Your task to perform on an android device: turn off location Image 0: 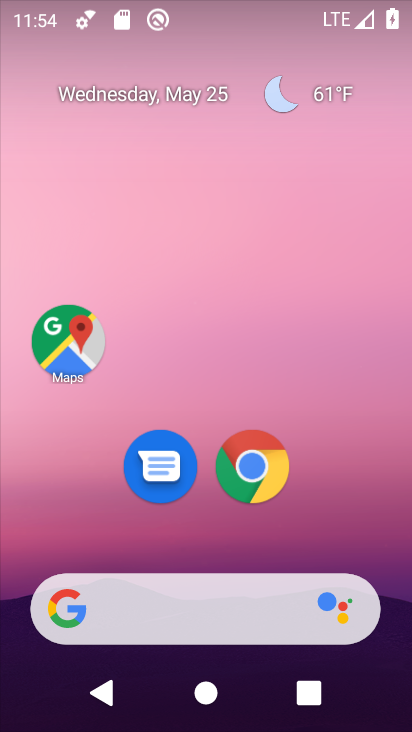
Step 0: drag from (243, 555) to (319, 60)
Your task to perform on an android device: turn off location Image 1: 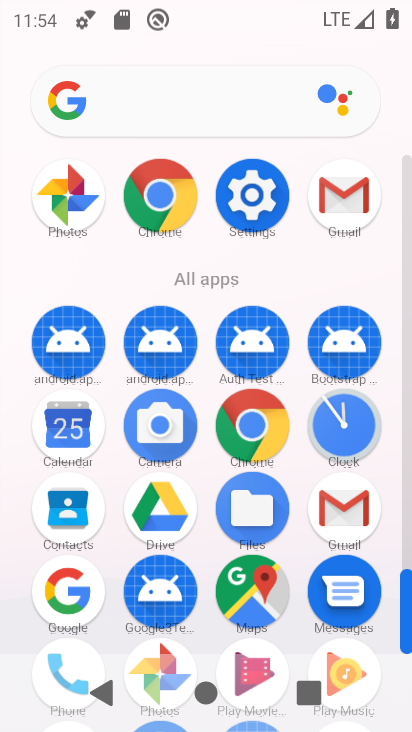
Step 1: click (250, 201)
Your task to perform on an android device: turn off location Image 2: 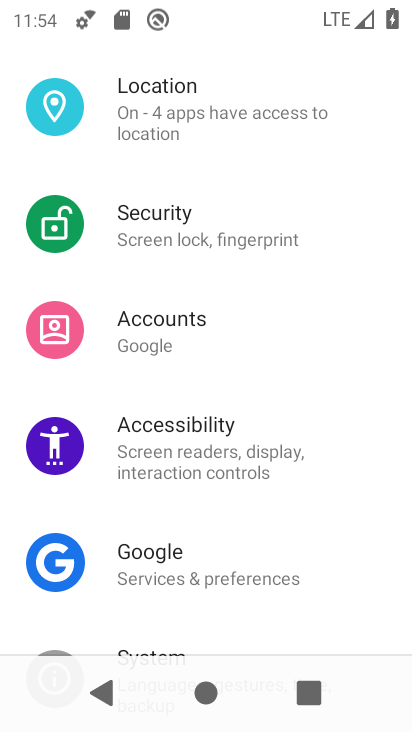
Step 2: click (232, 118)
Your task to perform on an android device: turn off location Image 3: 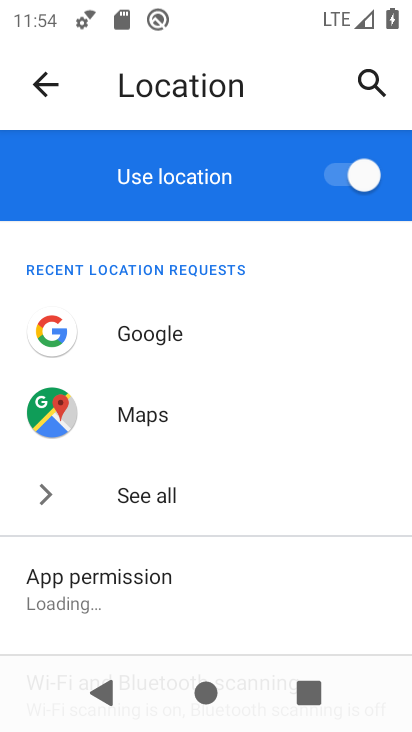
Step 3: click (298, 187)
Your task to perform on an android device: turn off location Image 4: 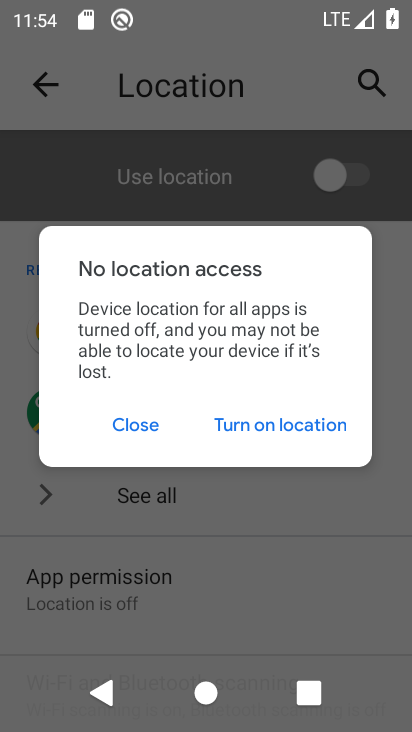
Step 4: click (158, 431)
Your task to perform on an android device: turn off location Image 5: 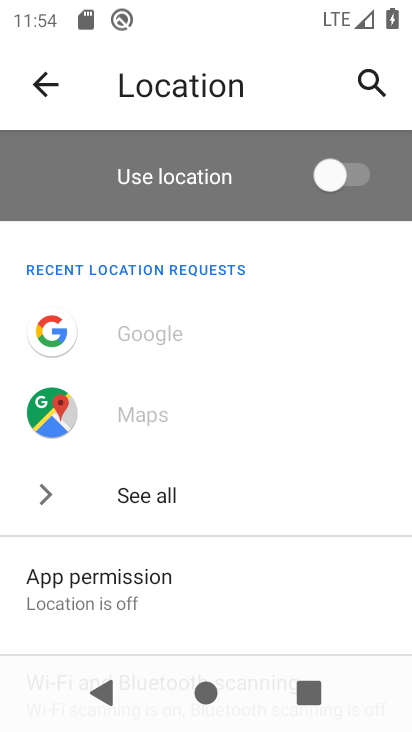
Step 5: task complete